Your task to perform on an android device: turn smart compose on in the gmail app Image 0: 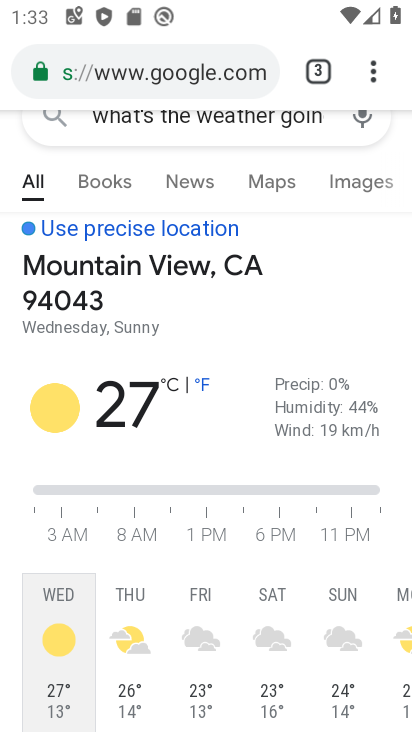
Step 0: press home button
Your task to perform on an android device: turn smart compose on in the gmail app Image 1: 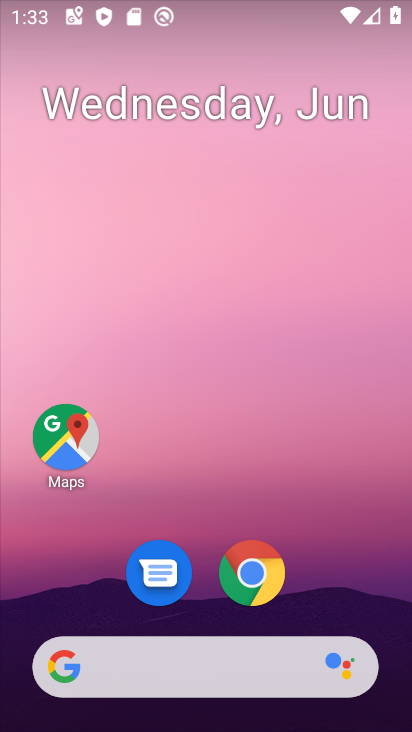
Step 1: drag from (357, 585) to (337, 157)
Your task to perform on an android device: turn smart compose on in the gmail app Image 2: 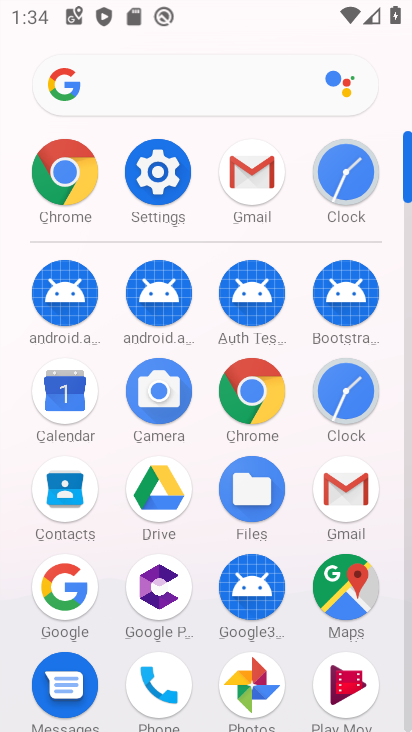
Step 2: click (366, 508)
Your task to perform on an android device: turn smart compose on in the gmail app Image 3: 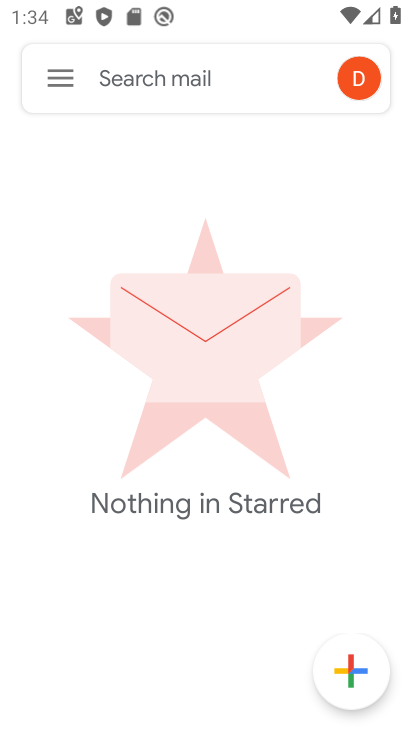
Step 3: click (49, 68)
Your task to perform on an android device: turn smart compose on in the gmail app Image 4: 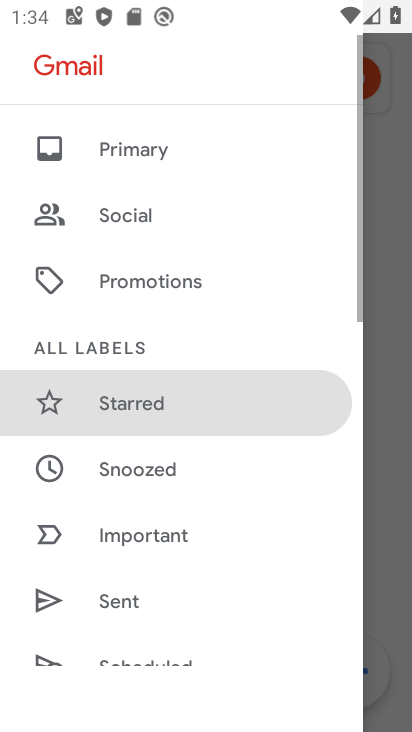
Step 4: drag from (188, 548) to (226, 121)
Your task to perform on an android device: turn smart compose on in the gmail app Image 5: 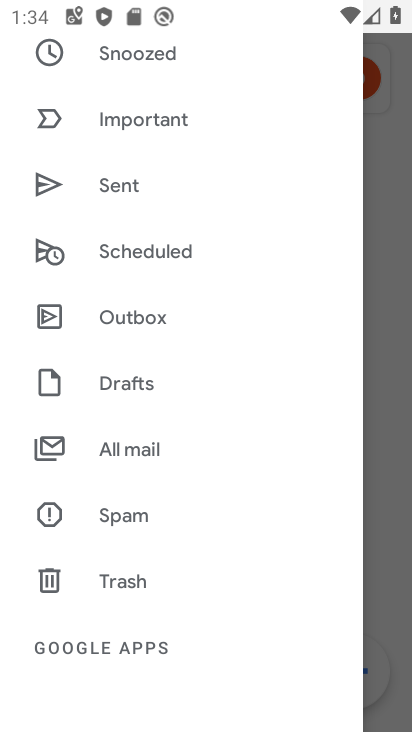
Step 5: drag from (206, 623) to (252, 98)
Your task to perform on an android device: turn smart compose on in the gmail app Image 6: 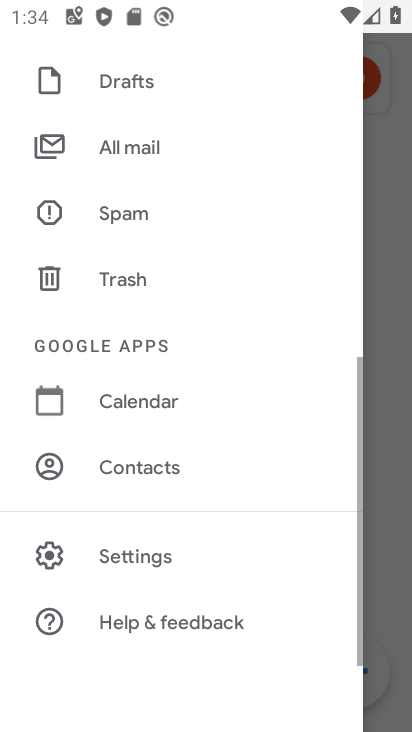
Step 6: click (141, 543)
Your task to perform on an android device: turn smart compose on in the gmail app Image 7: 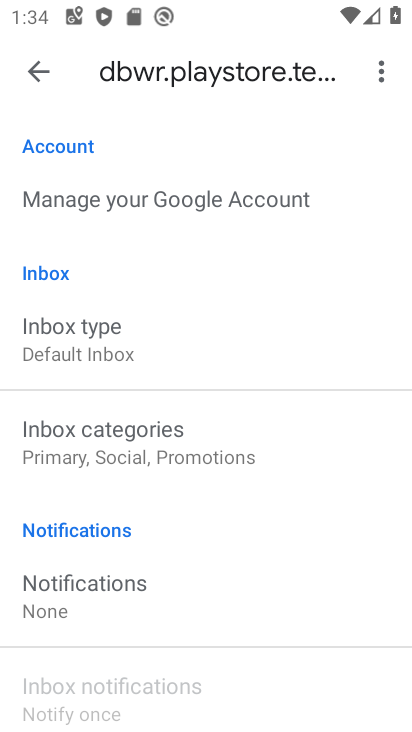
Step 7: task complete